Your task to perform on an android device: Is it going to rain tomorrow? Image 0: 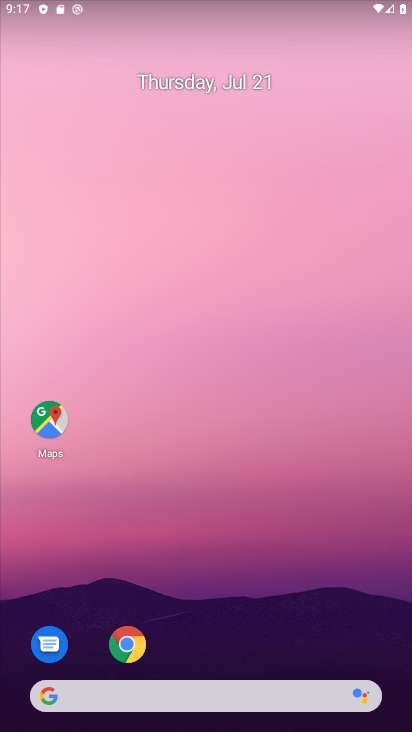
Step 0: task complete